Your task to perform on an android device: Look up the best rated 3d printer on Ali Express Image 0: 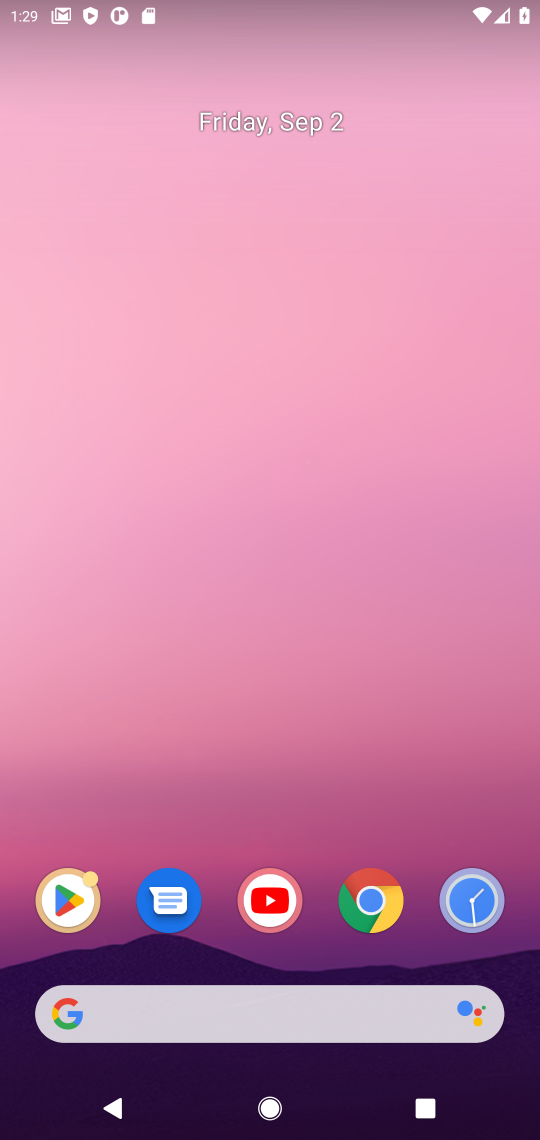
Step 0: click (373, 913)
Your task to perform on an android device: Look up the best rated 3d printer on Ali Express Image 1: 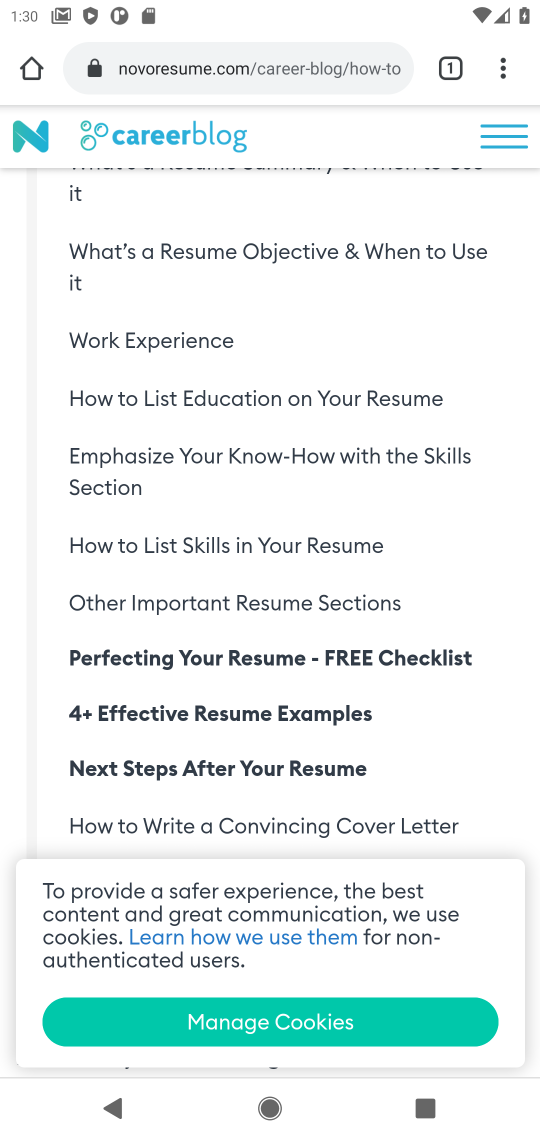
Step 1: click (355, 70)
Your task to perform on an android device: Look up the best rated 3d printer on Ali Express Image 2: 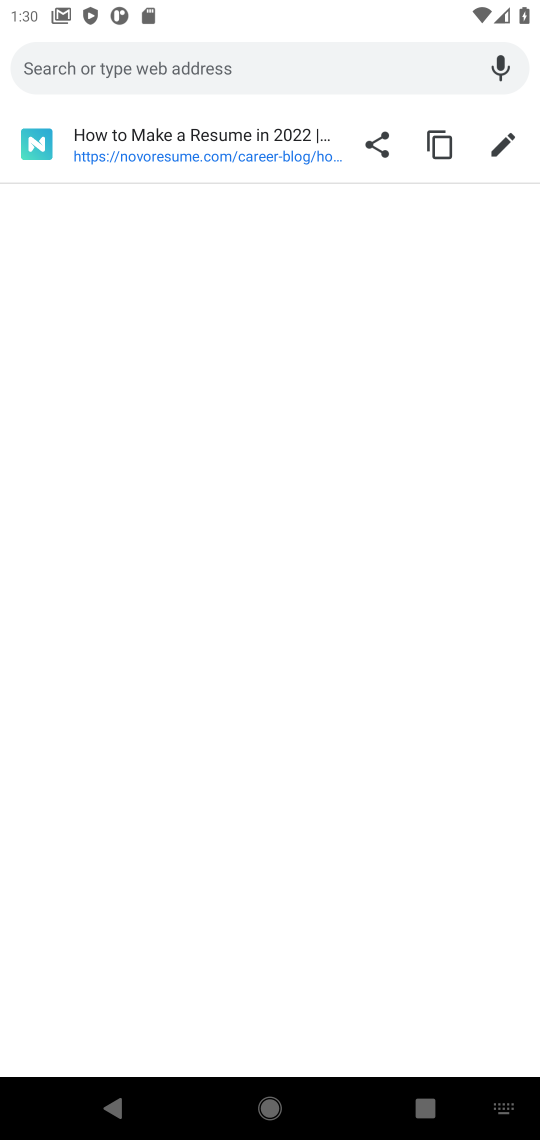
Step 2: type "ali express"
Your task to perform on an android device: Look up the best rated 3d printer on Ali Express Image 3: 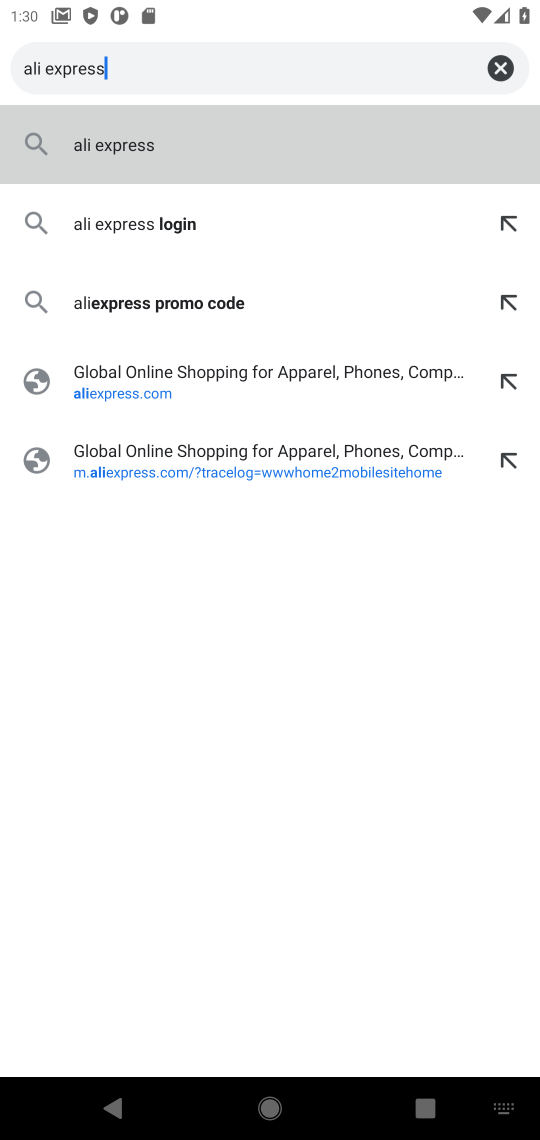
Step 3: click (222, 146)
Your task to perform on an android device: Look up the best rated 3d printer on Ali Express Image 4: 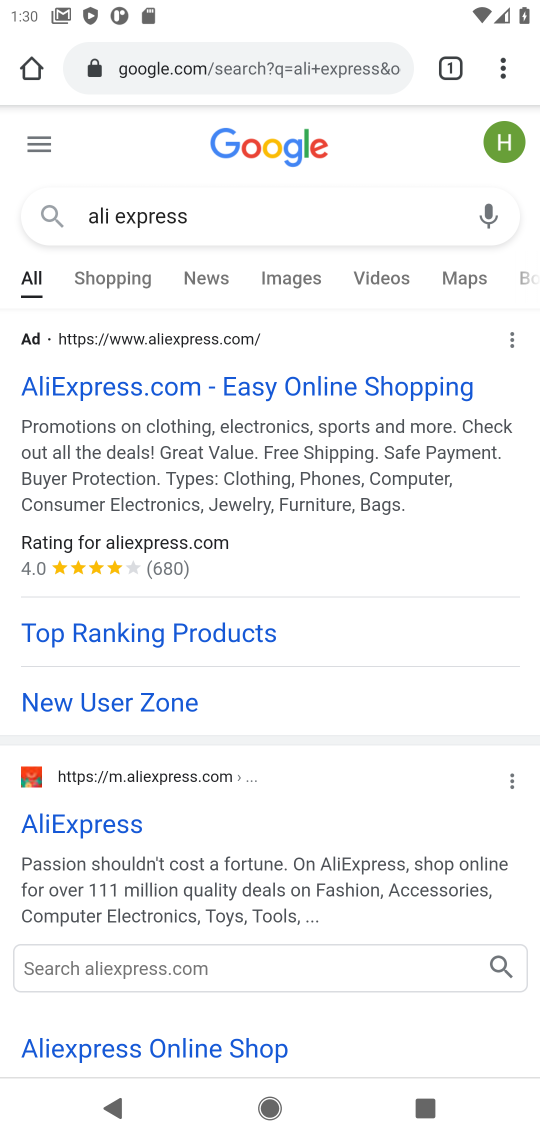
Step 4: click (71, 827)
Your task to perform on an android device: Look up the best rated 3d printer on Ali Express Image 5: 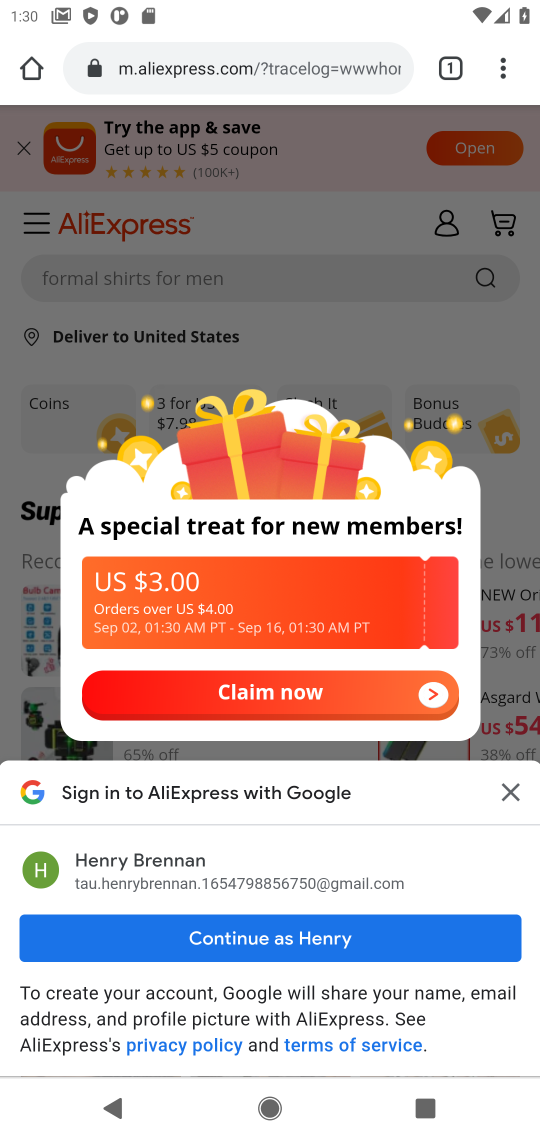
Step 5: click (511, 789)
Your task to perform on an android device: Look up the best rated 3d printer on Ali Express Image 6: 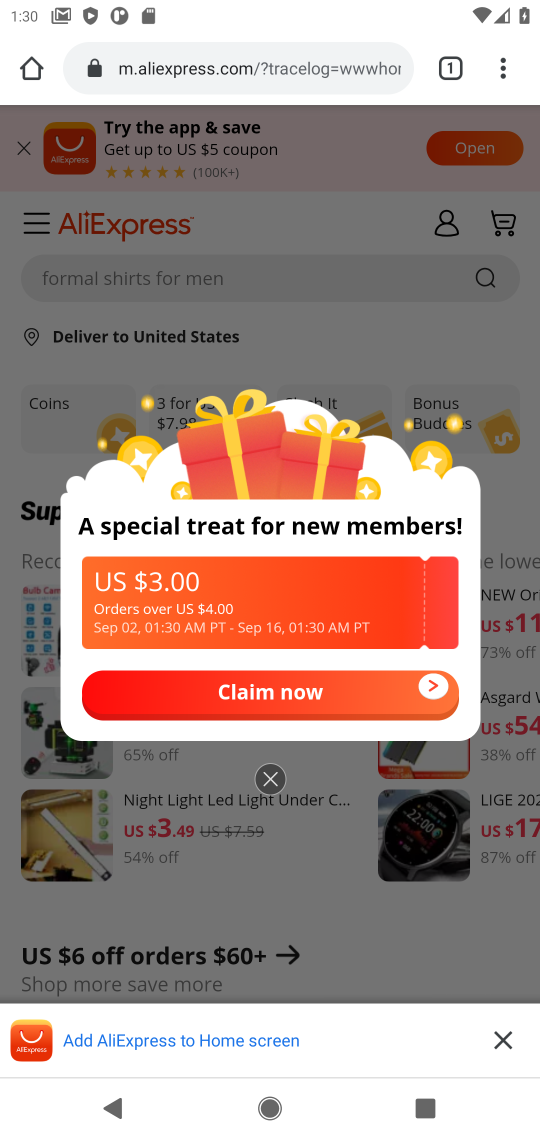
Step 6: click (507, 421)
Your task to perform on an android device: Look up the best rated 3d printer on Ali Express Image 7: 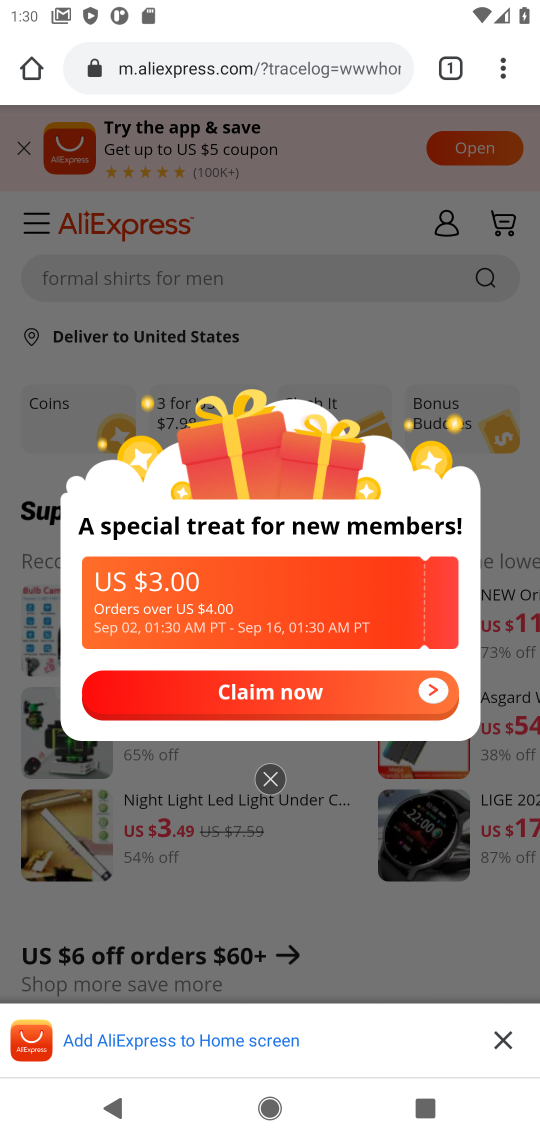
Step 7: click (313, 1035)
Your task to perform on an android device: Look up the best rated 3d printer on Ali Express Image 8: 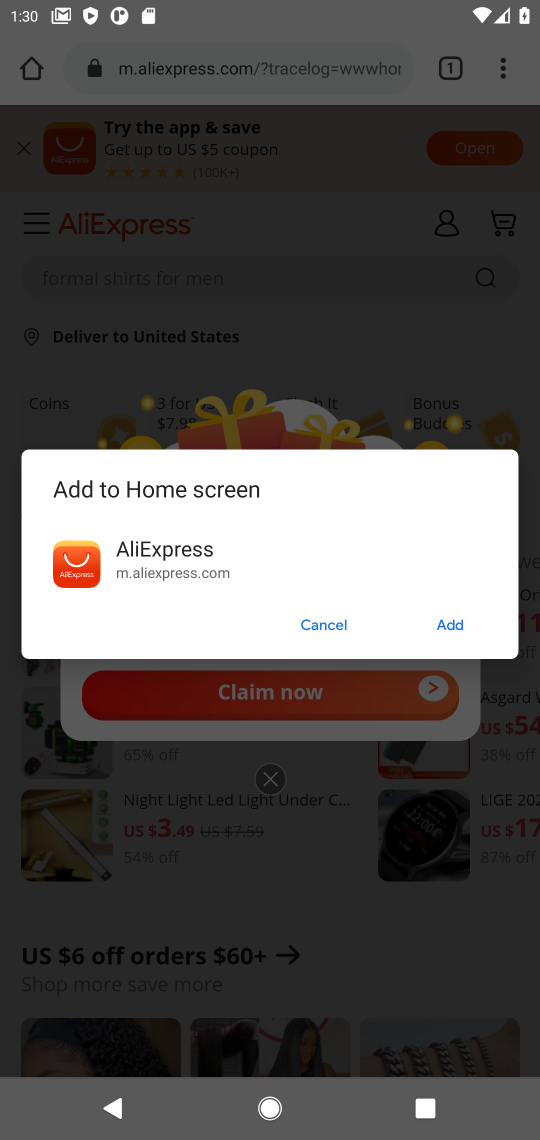
Step 8: click (335, 626)
Your task to perform on an android device: Look up the best rated 3d printer on Ali Express Image 9: 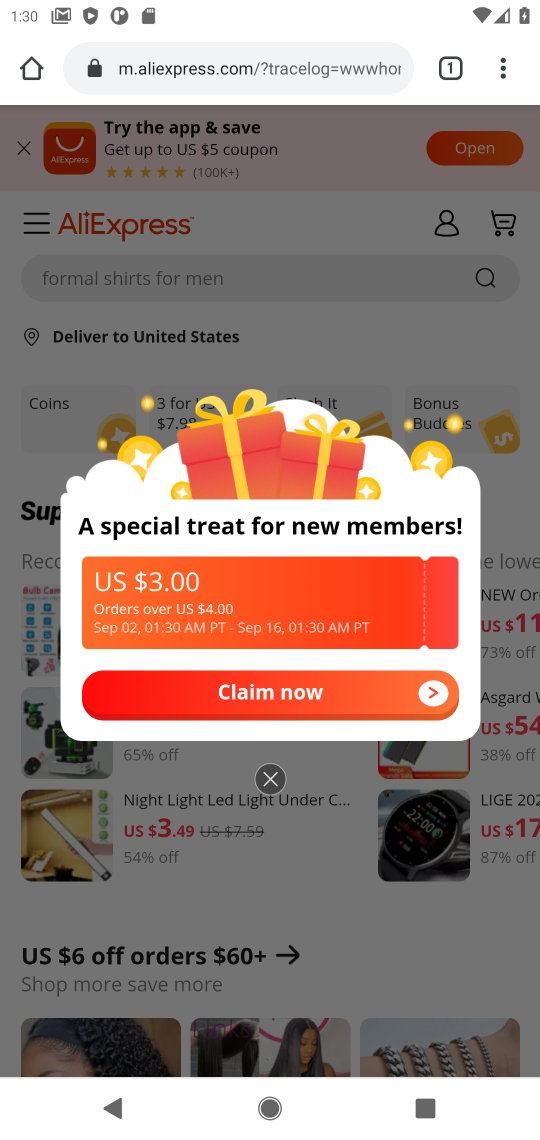
Step 9: click (418, 342)
Your task to perform on an android device: Look up the best rated 3d printer on Ali Express Image 10: 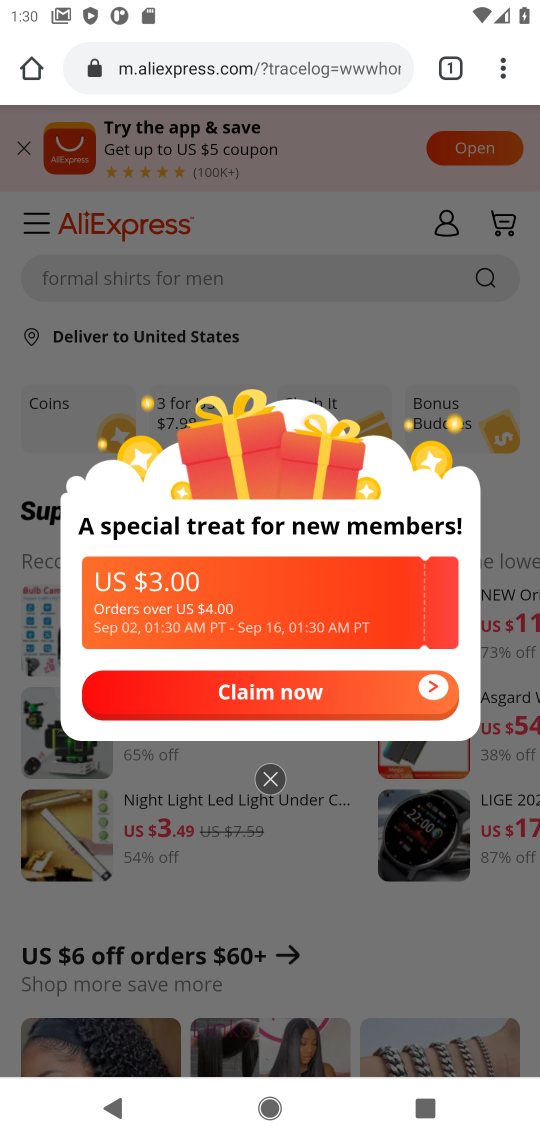
Step 10: click (418, 342)
Your task to perform on an android device: Look up the best rated 3d printer on Ali Express Image 11: 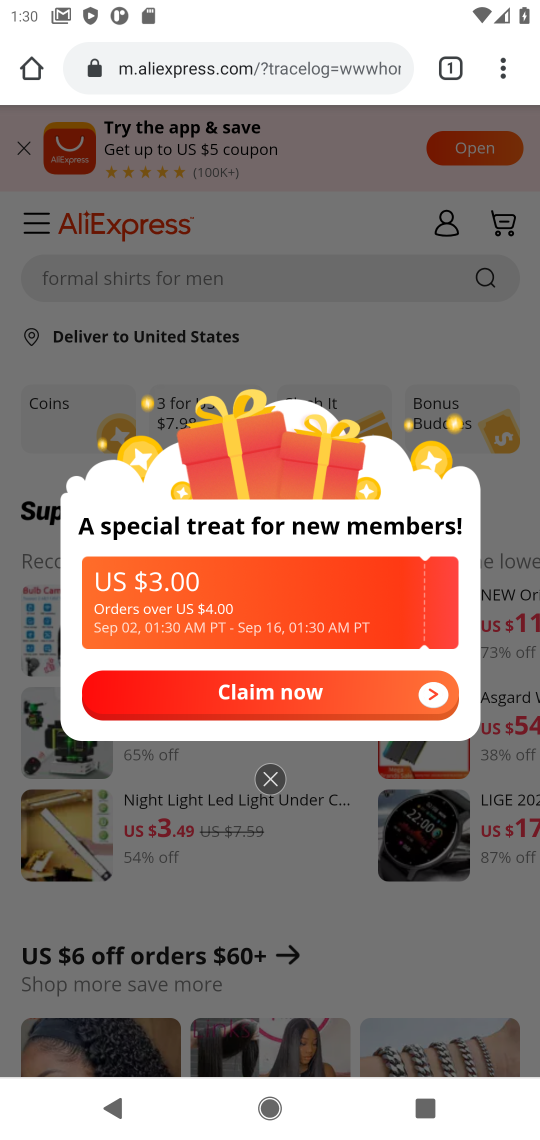
Step 11: drag from (484, 388) to (508, 523)
Your task to perform on an android device: Look up the best rated 3d printer on Ali Express Image 12: 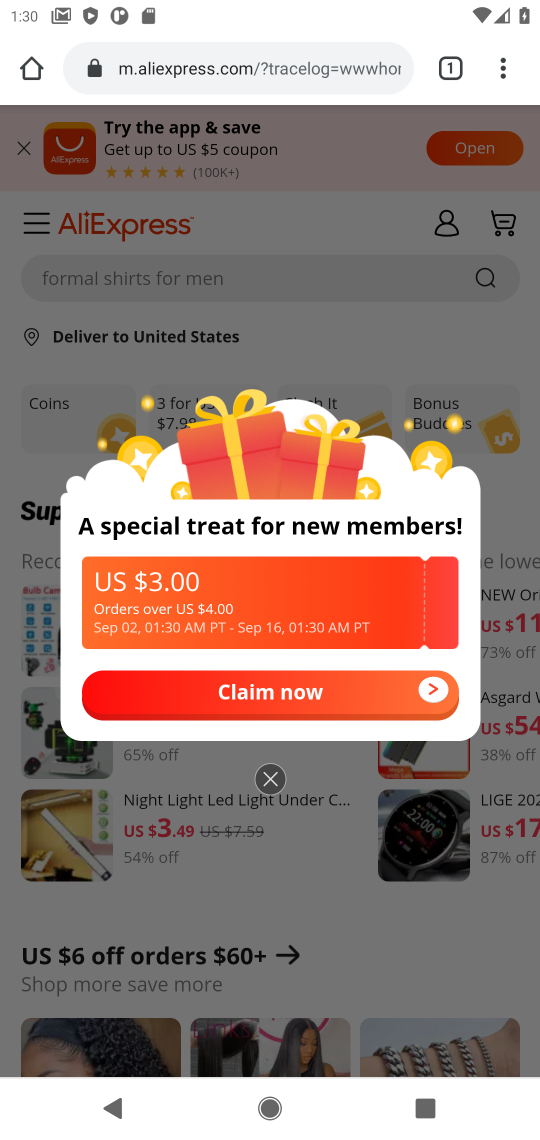
Step 12: click (273, 784)
Your task to perform on an android device: Look up the best rated 3d printer on Ali Express Image 13: 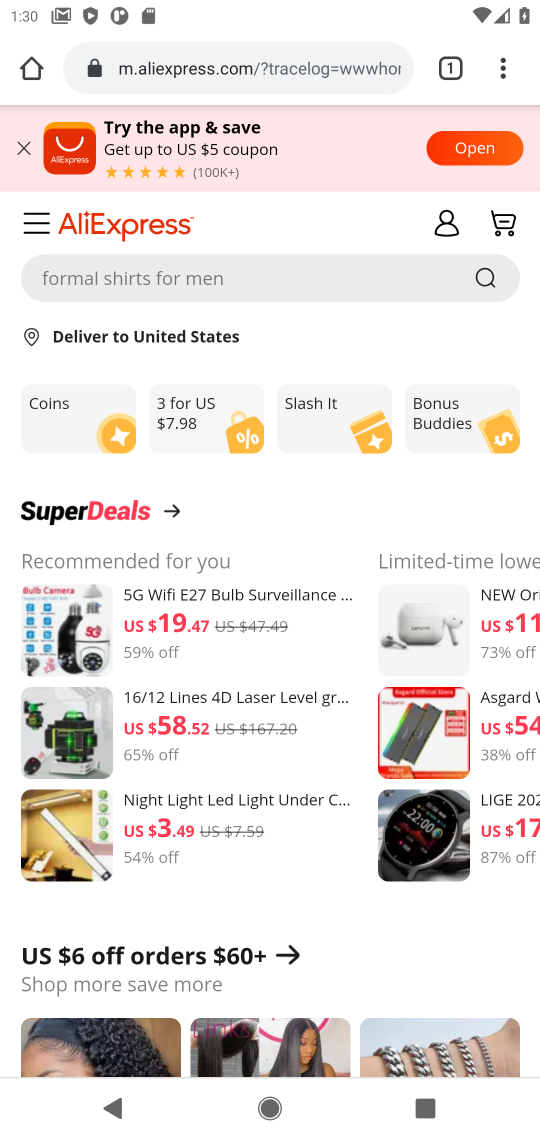
Step 13: click (204, 284)
Your task to perform on an android device: Look up the best rated 3d printer on Ali Express Image 14: 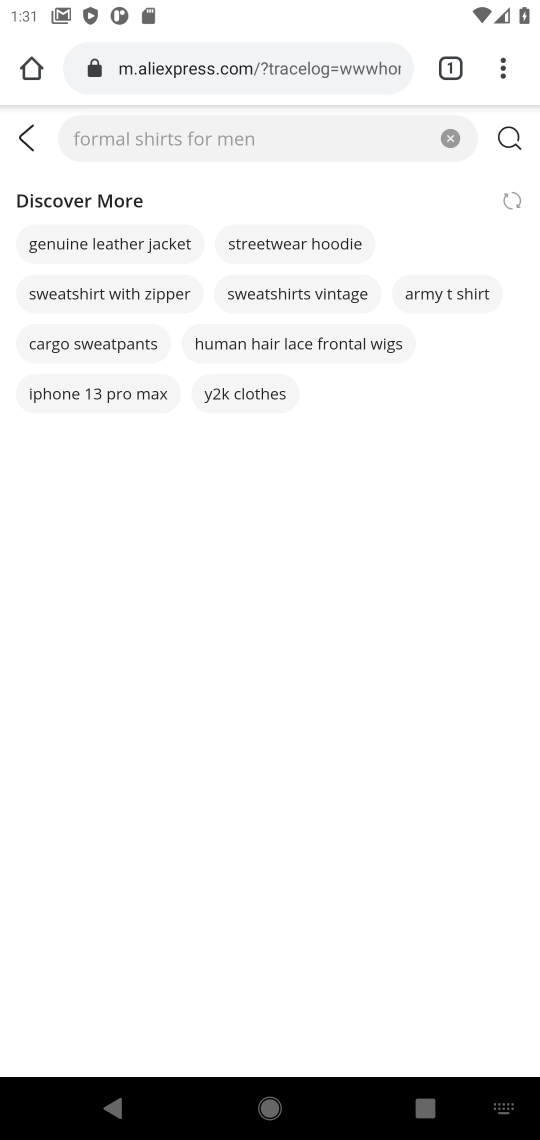
Step 14: type "3d printer"
Your task to perform on an android device: Look up the best rated 3d printer on Ali Express Image 15: 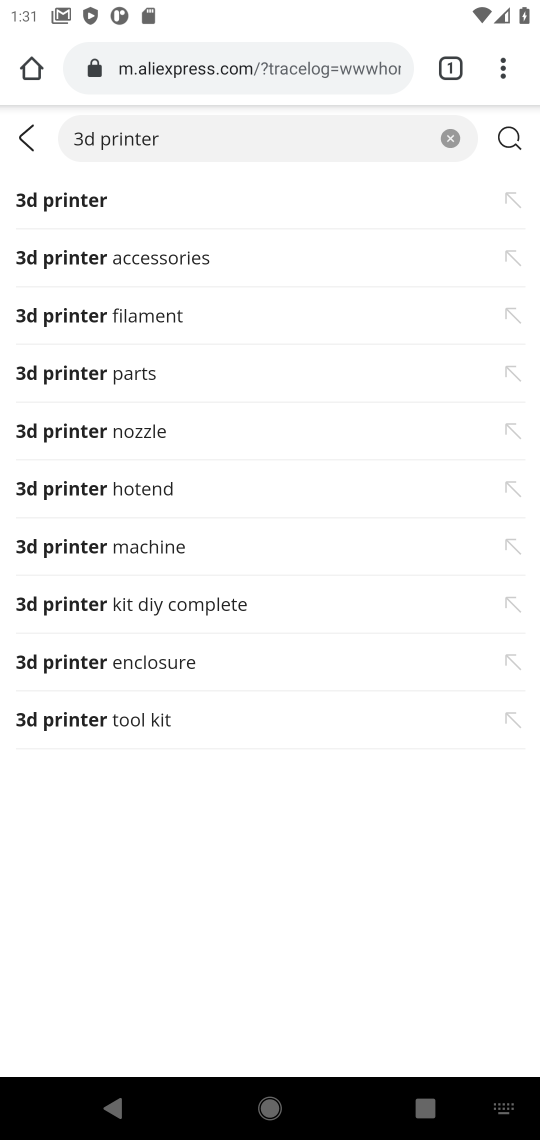
Step 15: click (143, 195)
Your task to perform on an android device: Look up the best rated 3d printer on Ali Express Image 16: 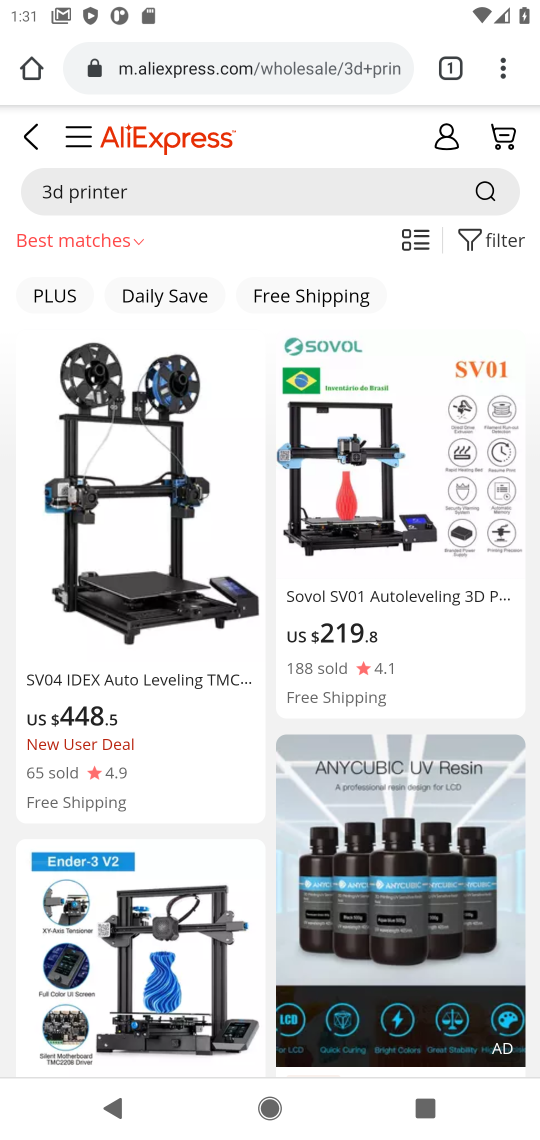
Step 16: click (472, 241)
Your task to perform on an android device: Look up the best rated 3d printer on Ali Express Image 17: 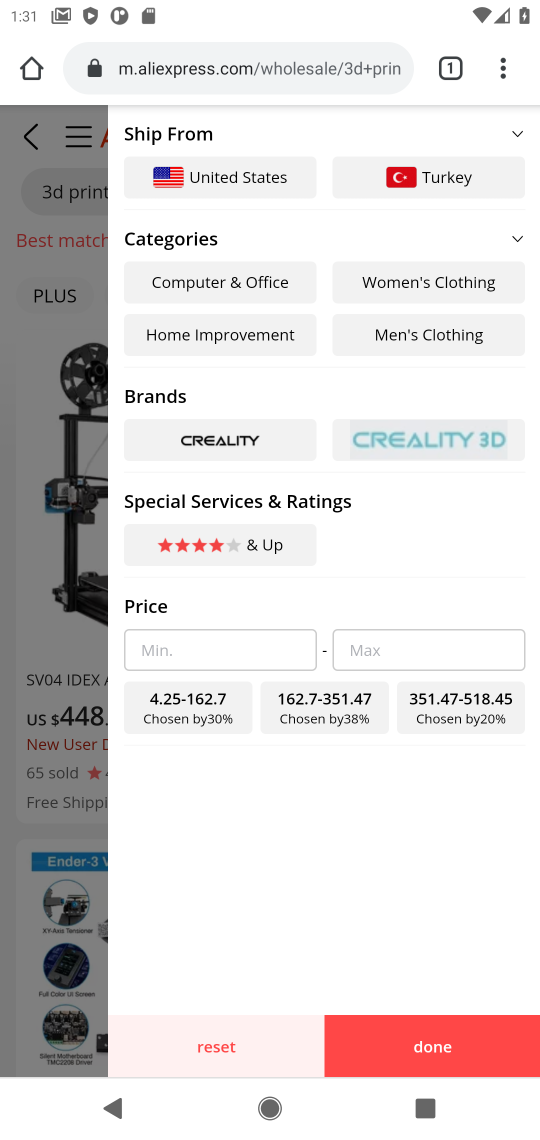
Step 17: click (240, 548)
Your task to perform on an android device: Look up the best rated 3d printer on Ali Express Image 18: 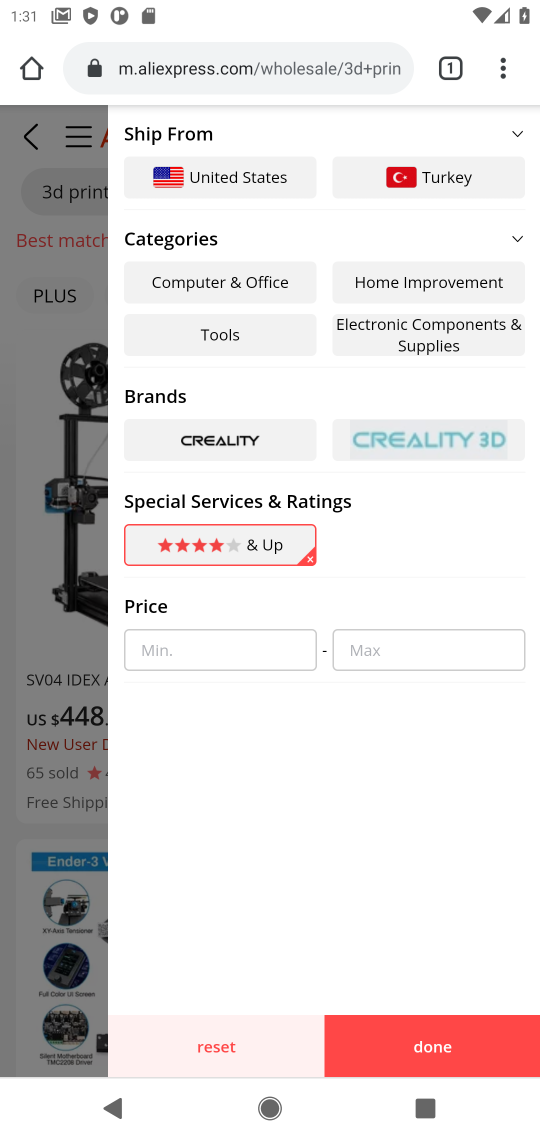
Step 18: click (449, 1045)
Your task to perform on an android device: Look up the best rated 3d printer on Ali Express Image 19: 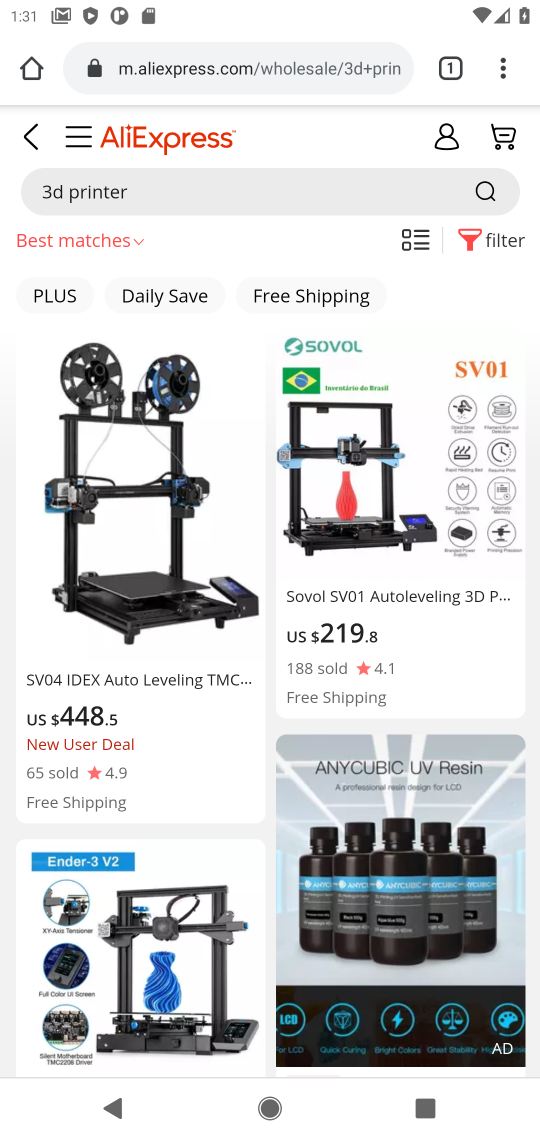
Step 19: task complete